Your task to perform on an android device: Open Google Maps and go to "Timeline" Image 0: 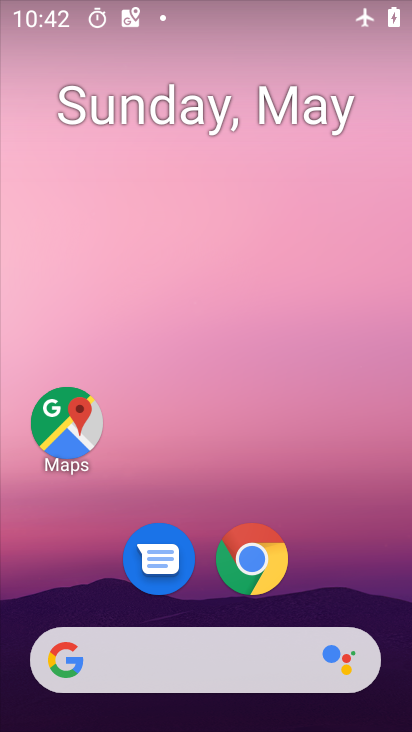
Step 0: drag from (372, 551) to (355, 106)
Your task to perform on an android device: Open Google Maps and go to "Timeline" Image 1: 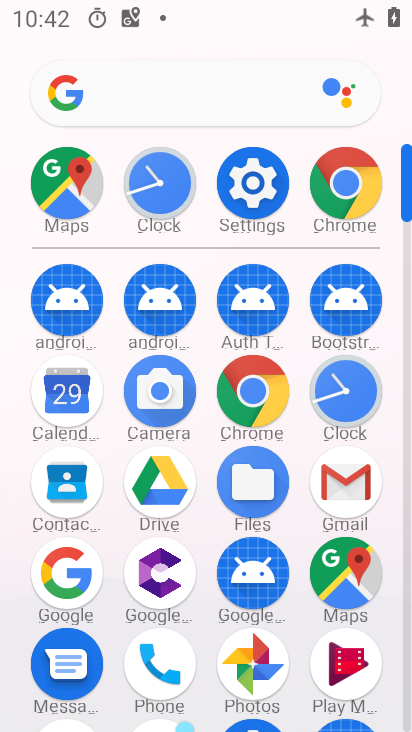
Step 1: click (243, 184)
Your task to perform on an android device: Open Google Maps and go to "Timeline" Image 2: 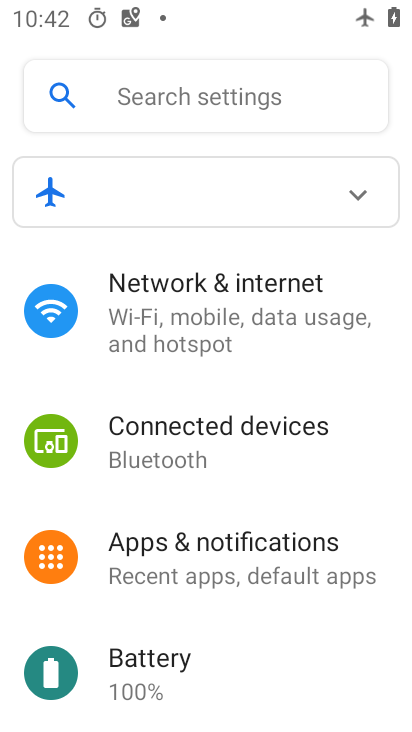
Step 2: click (82, 188)
Your task to perform on an android device: Open Google Maps and go to "Timeline" Image 3: 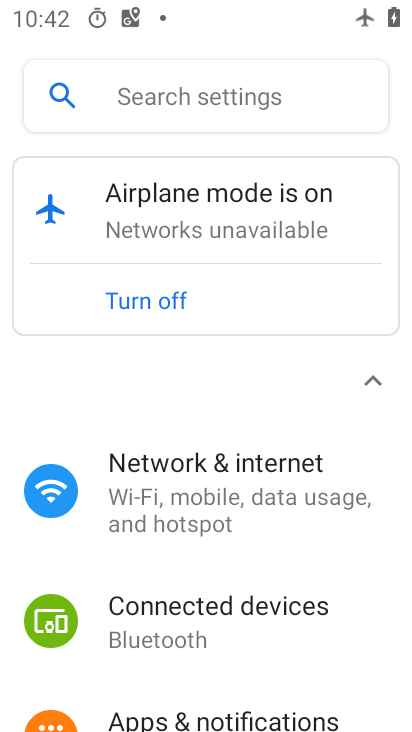
Step 3: click (154, 288)
Your task to perform on an android device: Open Google Maps and go to "Timeline" Image 4: 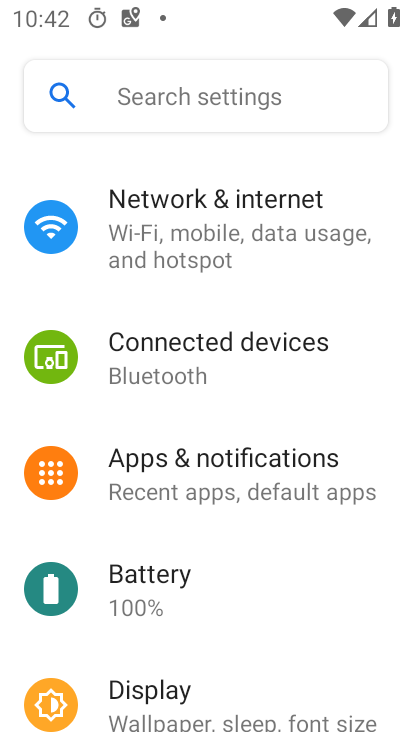
Step 4: drag from (225, 584) to (227, 333)
Your task to perform on an android device: Open Google Maps and go to "Timeline" Image 5: 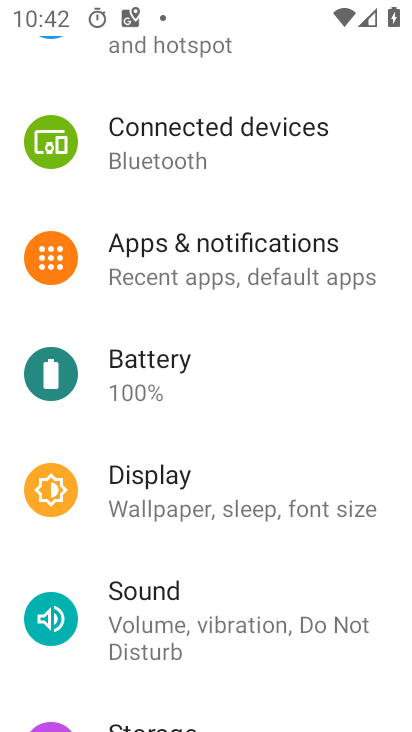
Step 5: press home button
Your task to perform on an android device: Open Google Maps and go to "Timeline" Image 6: 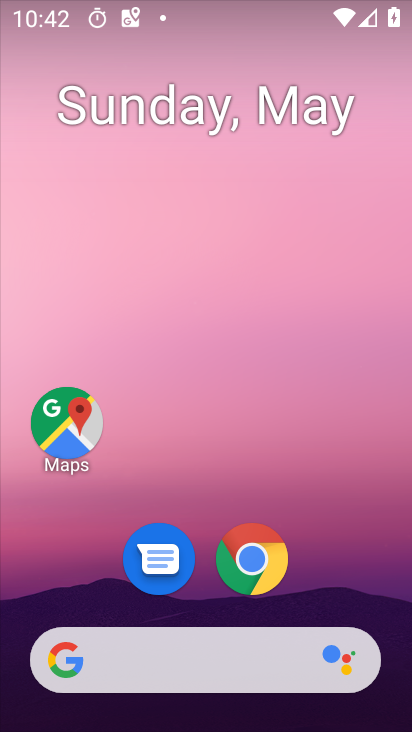
Step 6: drag from (361, 536) to (364, 227)
Your task to perform on an android device: Open Google Maps and go to "Timeline" Image 7: 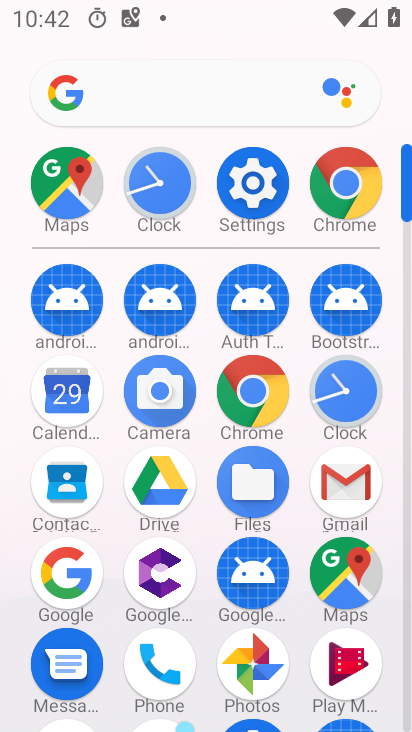
Step 7: drag from (287, 615) to (303, 312)
Your task to perform on an android device: Open Google Maps and go to "Timeline" Image 8: 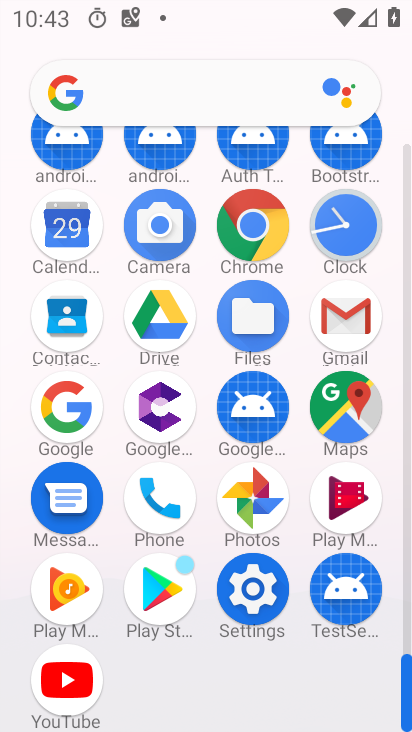
Step 8: click (349, 404)
Your task to perform on an android device: Open Google Maps and go to "Timeline" Image 9: 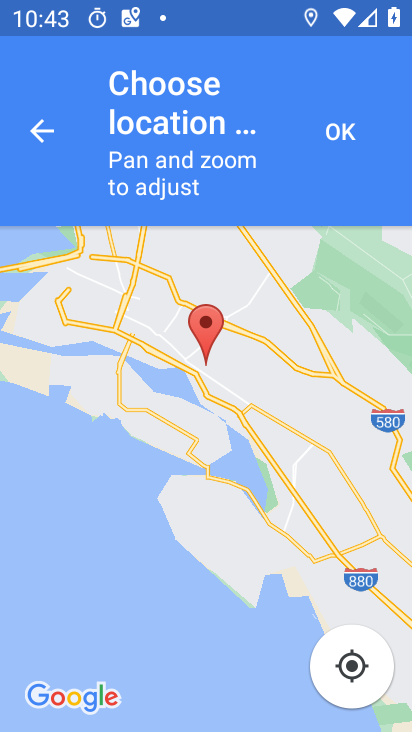
Step 9: click (44, 130)
Your task to perform on an android device: Open Google Maps and go to "Timeline" Image 10: 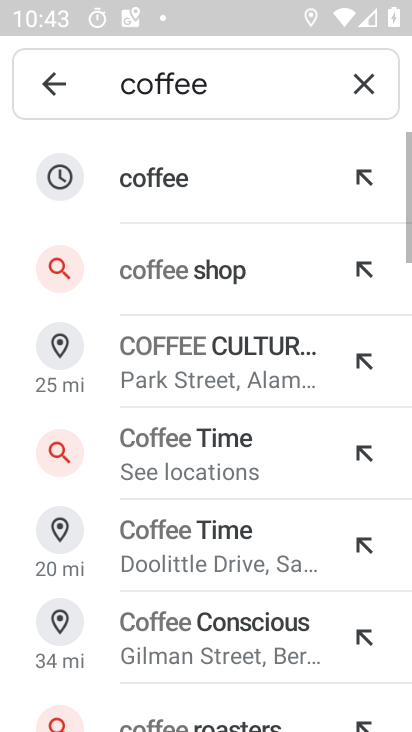
Step 10: click (56, 87)
Your task to perform on an android device: Open Google Maps and go to "Timeline" Image 11: 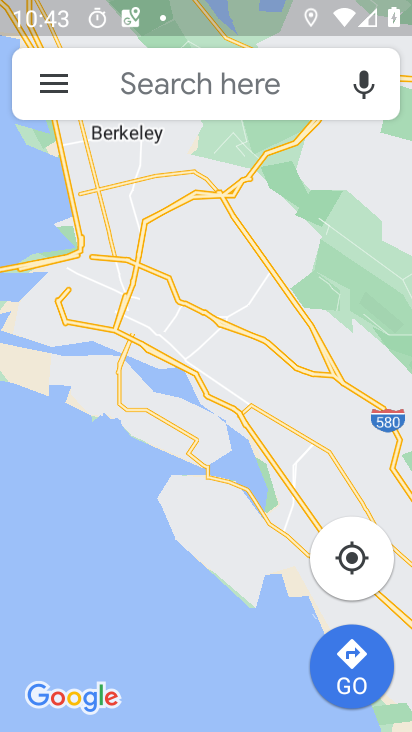
Step 11: click (56, 87)
Your task to perform on an android device: Open Google Maps and go to "Timeline" Image 12: 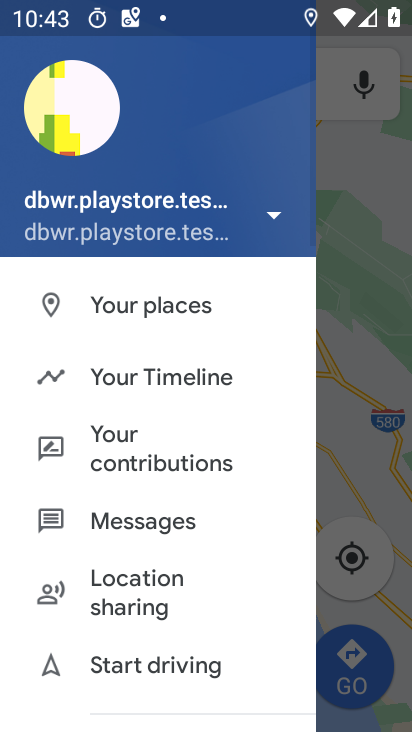
Step 12: click (147, 378)
Your task to perform on an android device: Open Google Maps and go to "Timeline" Image 13: 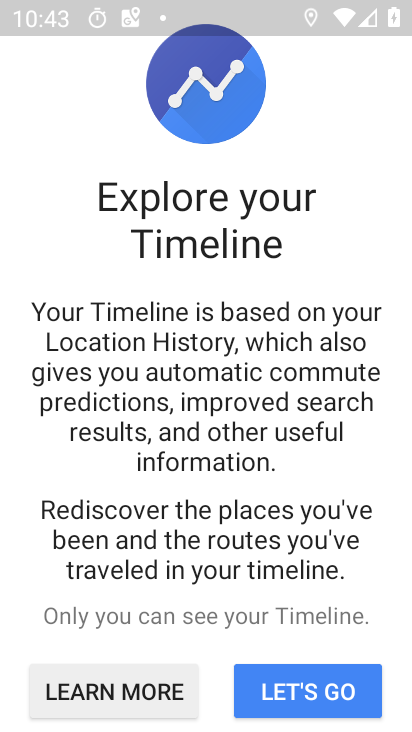
Step 13: click (290, 704)
Your task to perform on an android device: Open Google Maps and go to "Timeline" Image 14: 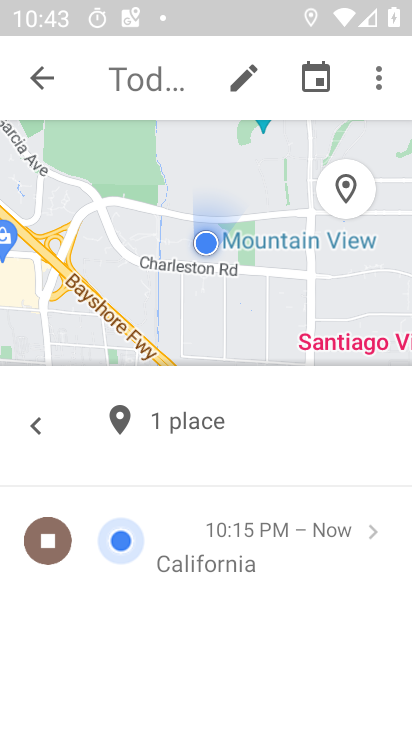
Step 14: task complete